Your task to perform on an android device: open app "LinkedIn" (install if not already installed) and go to login screen Image 0: 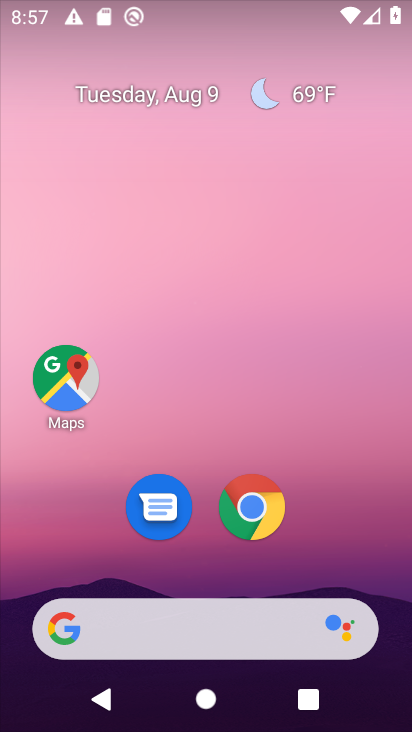
Step 0: drag from (169, 633) to (183, 159)
Your task to perform on an android device: open app "LinkedIn" (install if not already installed) and go to login screen Image 1: 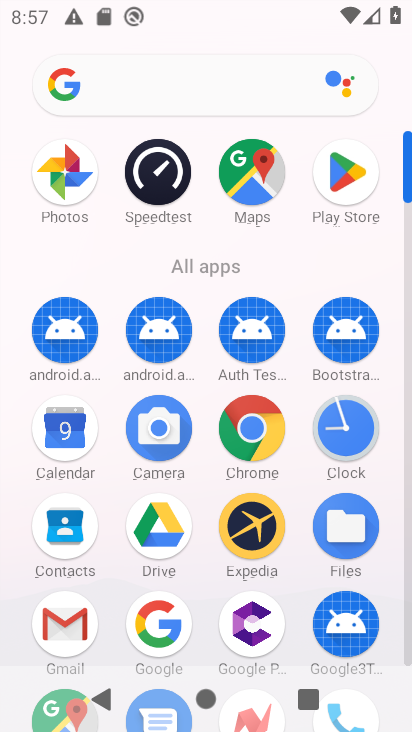
Step 1: click (352, 173)
Your task to perform on an android device: open app "LinkedIn" (install if not already installed) and go to login screen Image 2: 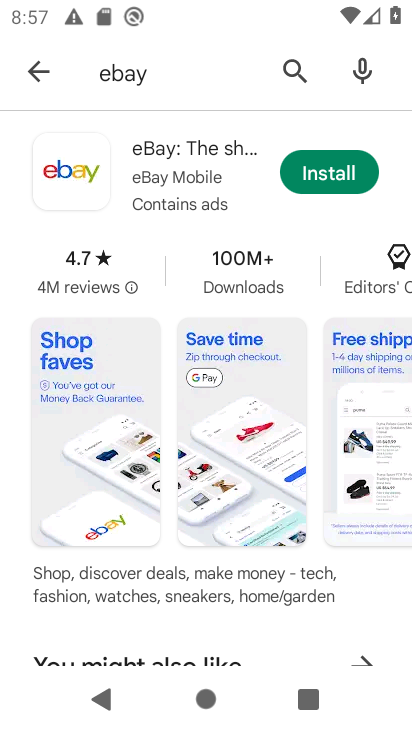
Step 2: click (293, 77)
Your task to perform on an android device: open app "LinkedIn" (install if not already installed) and go to login screen Image 3: 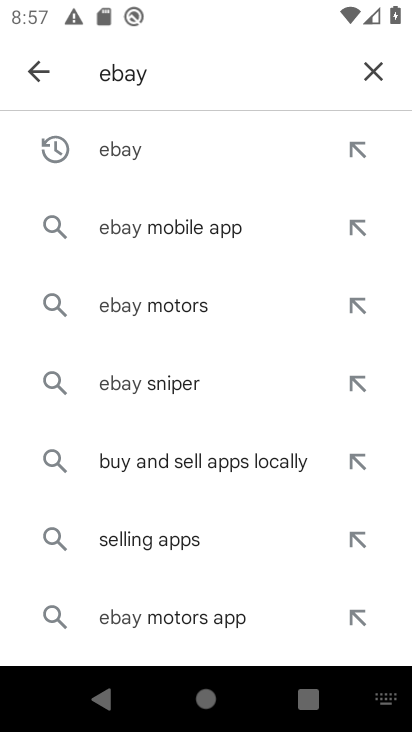
Step 3: click (376, 73)
Your task to perform on an android device: open app "LinkedIn" (install if not already installed) and go to login screen Image 4: 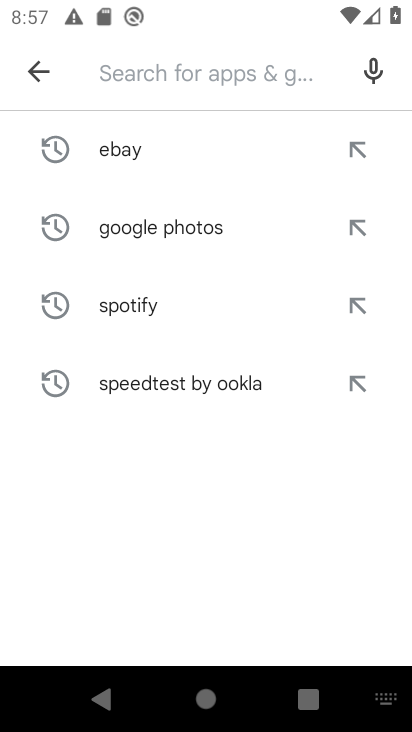
Step 4: type "LinkedIn"
Your task to perform on an android device: open app "LinkedIn" (install if not already installed) and go to login screen Image 5: 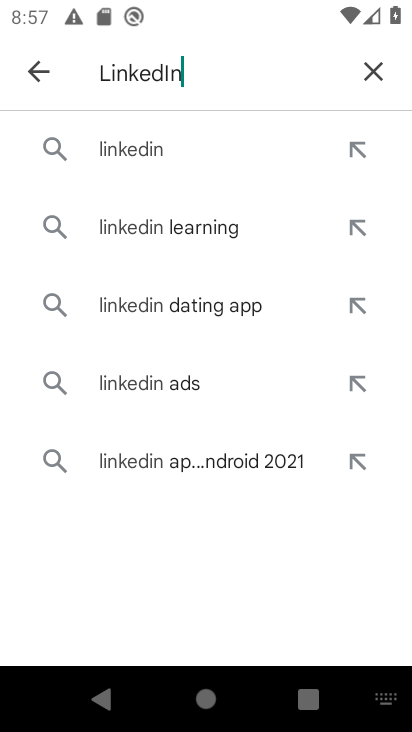
Step 5: click (162, 154)
Your task to perform on an android device: open app "LinkedIn" (install if not already installed) and go to login screen Image 6: 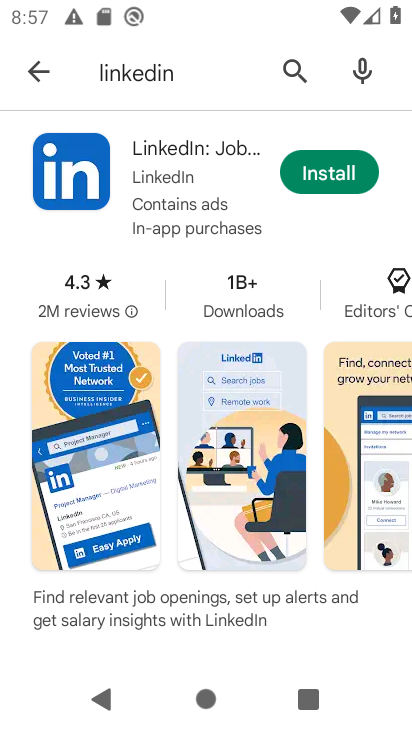
Step 6: click (330, 178)
Your task to perform on an android device: open app "LinkedIn" (install if not already installed) and go to login screen Image 7: 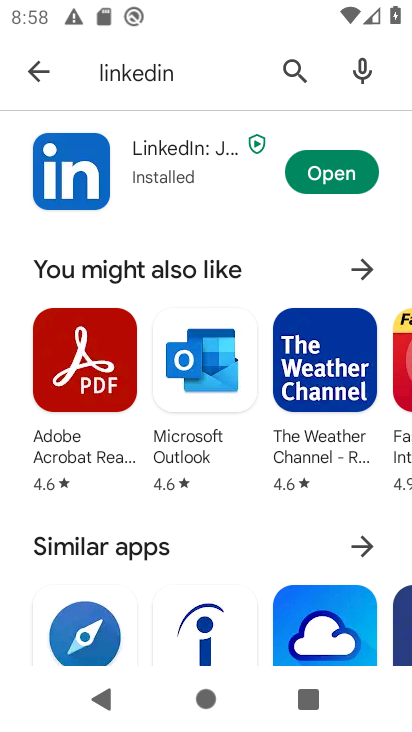
Step 7: click (322, 168)
Your task to perform on an android device: open app "LinkedIn" (install if not already installed) and go to login screen Image 8: 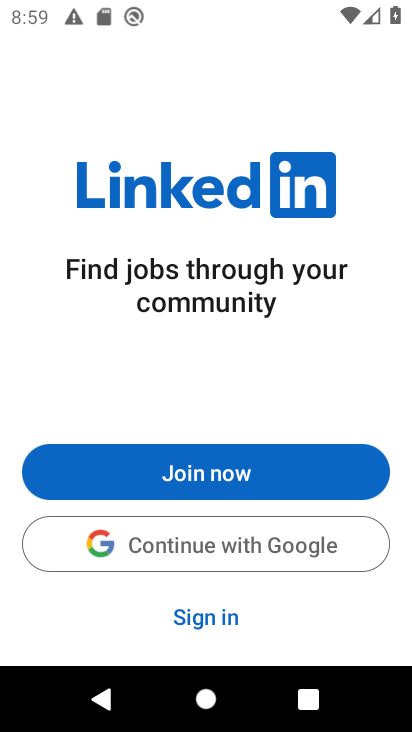
Step 8: click (205, 541)
Your task to perform on an android device: open app "LinkedIn" (install if not already installed) and go to login screen Image 9: 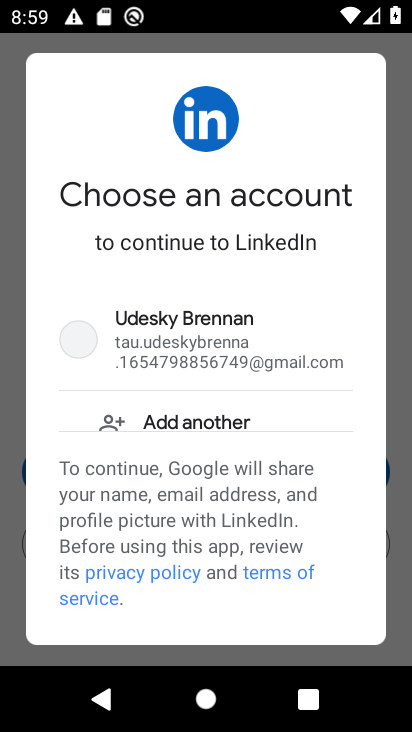
Step 9: task complete